Your task to perform on an android device: Open Yahoo.com Image 0: 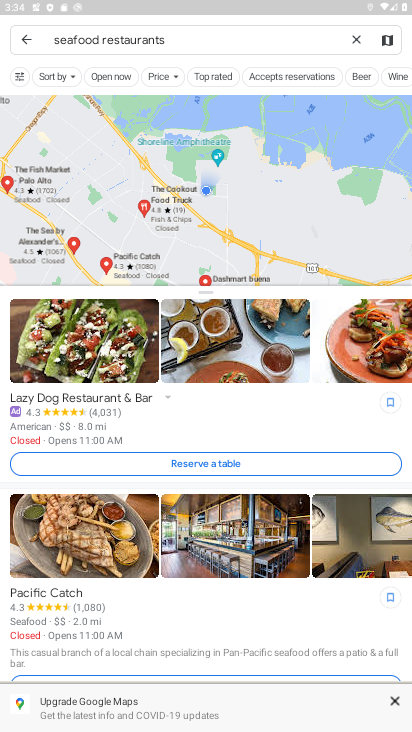
Step 0: press home button
Your task to perform on an android device: Open Yahoo.com Image 1: 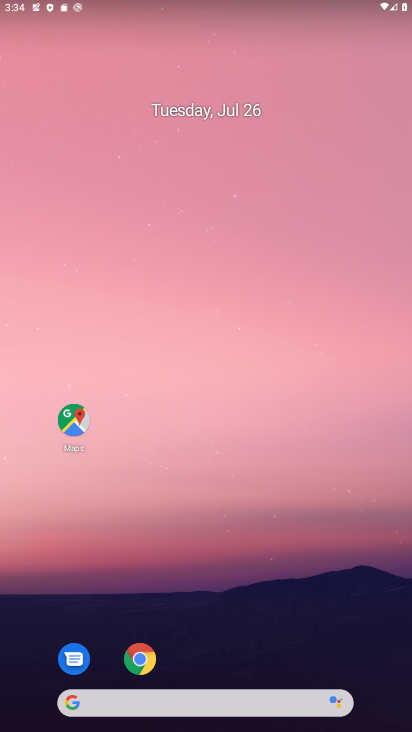
Step 1: click (137, 667)
Your task to perform on an android device: Open Yahoo.com Image 2: 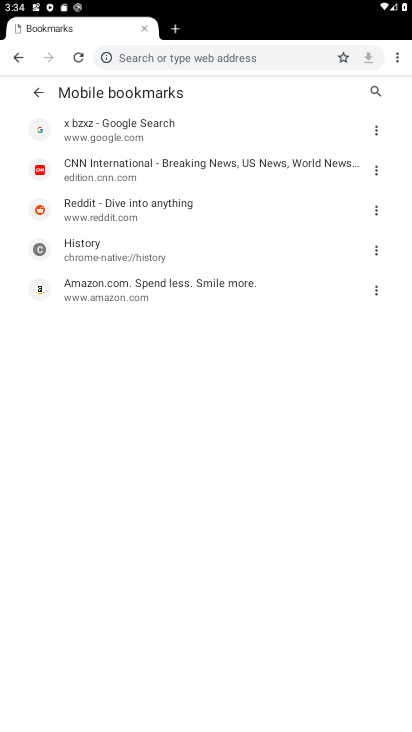
Step 2: click (202, 59)
Your task to perform on an android device: Open Yahoo.com Image 3: 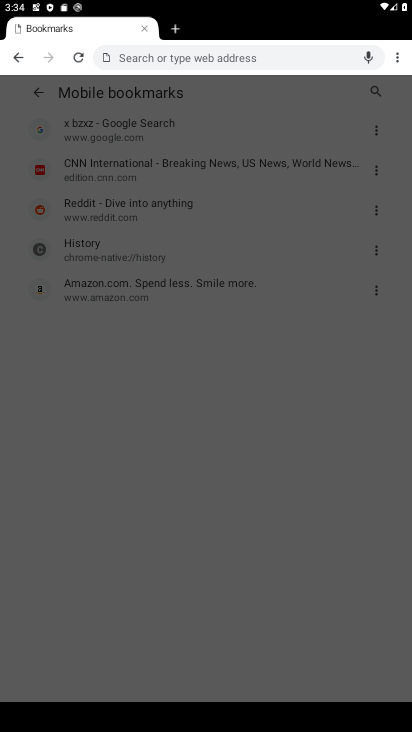
Step 3: type "yahoo.com"
Your task to perform on an android device: Open Yahoo.com Image 4: 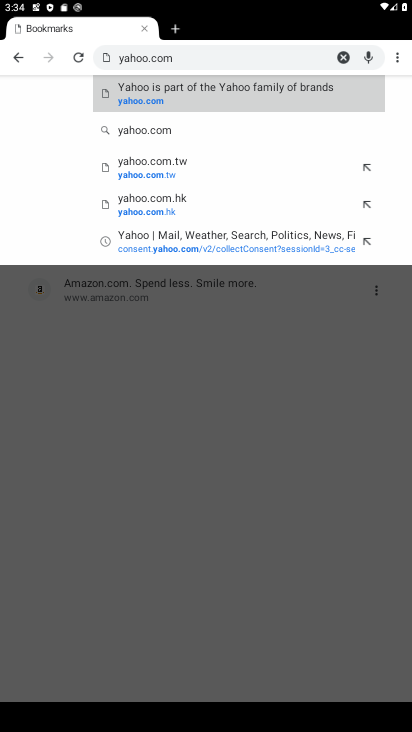
Step 4: click (146, 91)
Your task to perform on an android device: Open Yahoo.com Image 5: 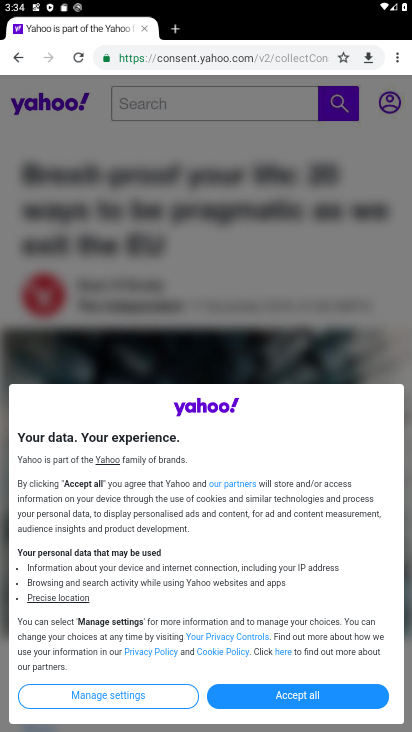
Step 5: task complete